Your task to perform on an android device: move an email to a new category in the gmail app Image 0: 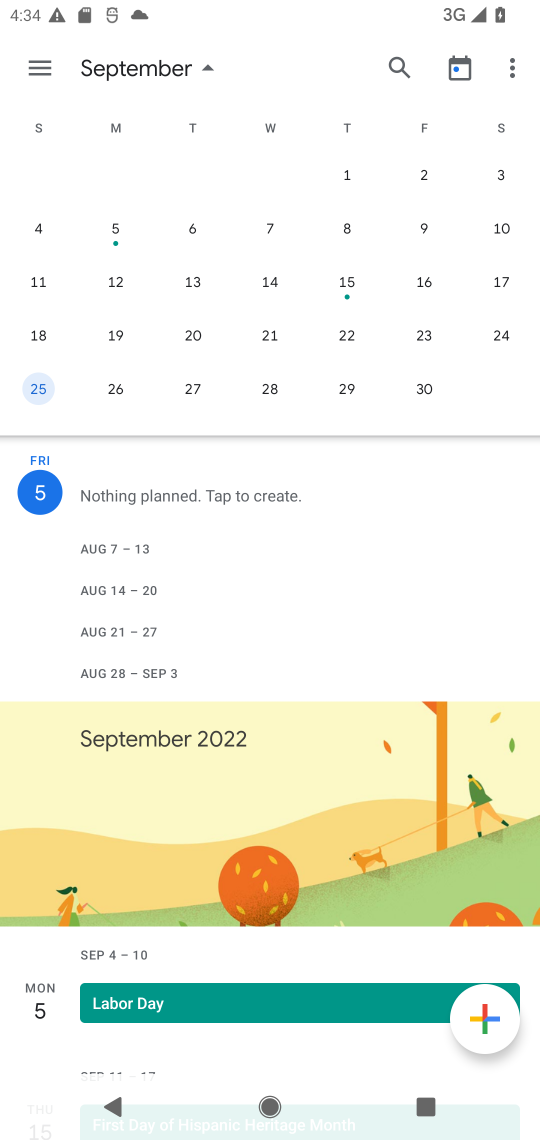
Step 0: press home button
Your task to perform on an android device: move an email to a new category in the gmail app Image 1: 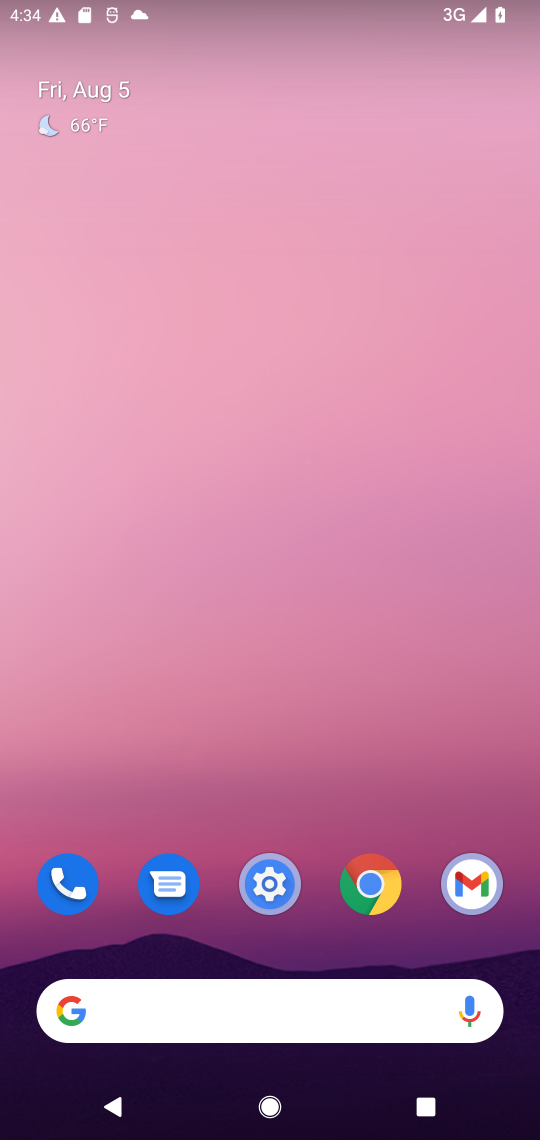
Step 1: drag from (434, 908) to (215, 14)
Your task to perform on an android device: move an email to a new category in the gmail app Image 2: 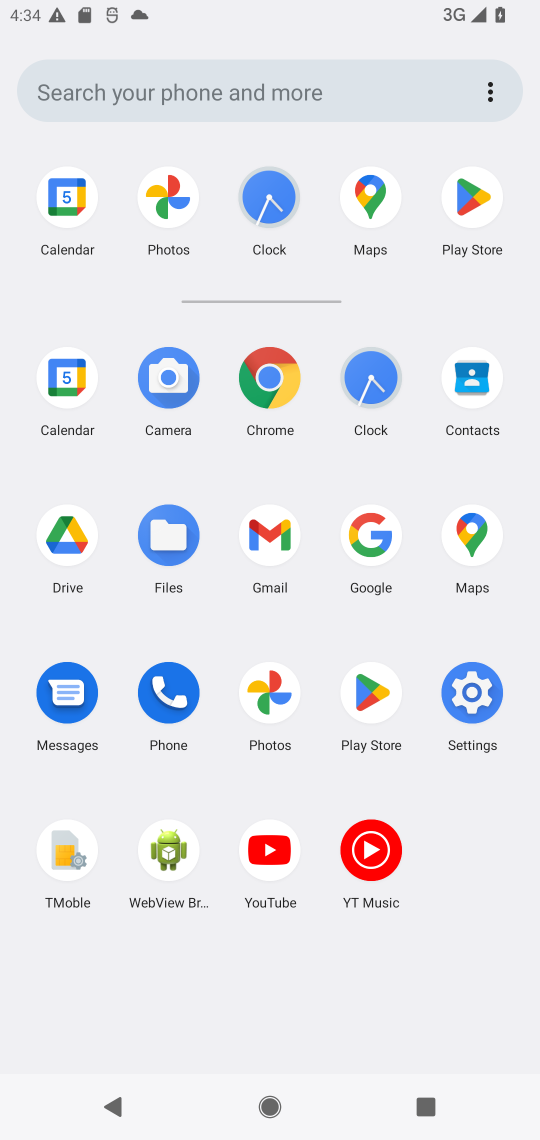
Step 2: click (273, 534)
Your task to perform on an android device: move an email to a new category in the gmail app Image 3: 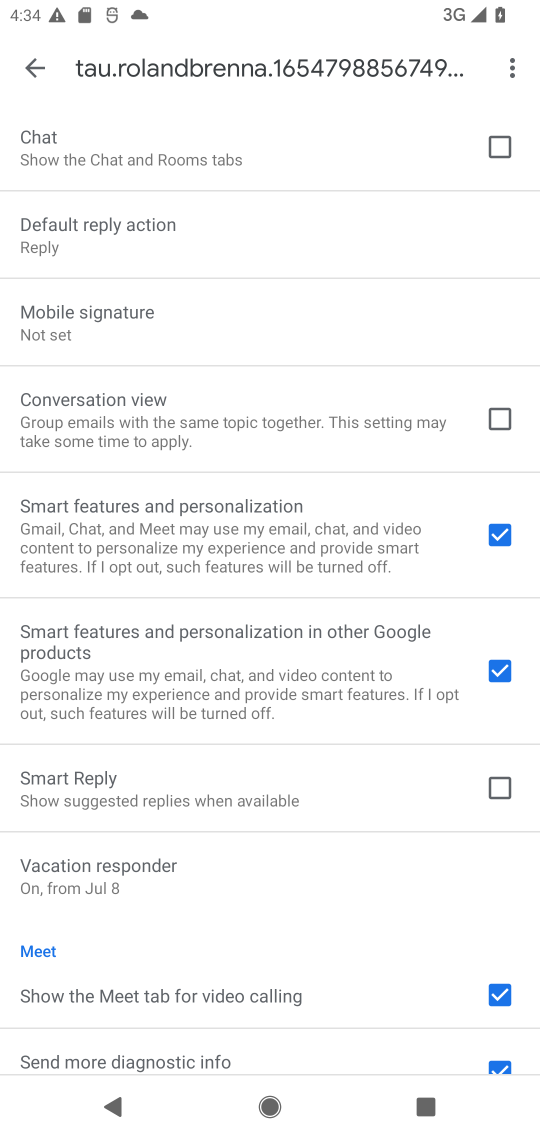
Step 3: task complete